Your task to perform on an android device: clear all cookies in the chrome app Image 0: 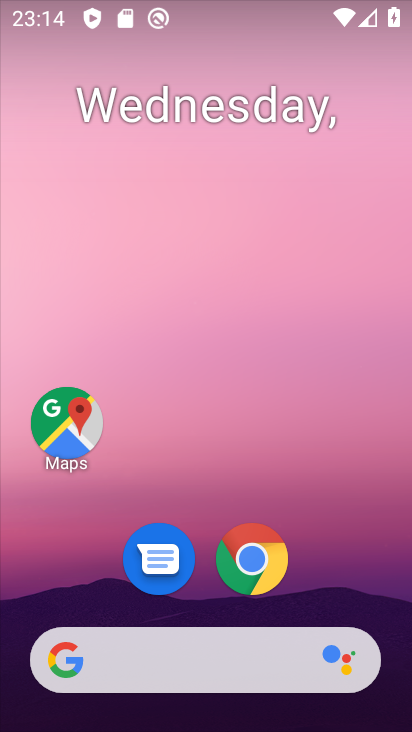
Step 0: click (258, 555)
Your task to perform on an android device: clear all cookies in the chrome app Image 1: 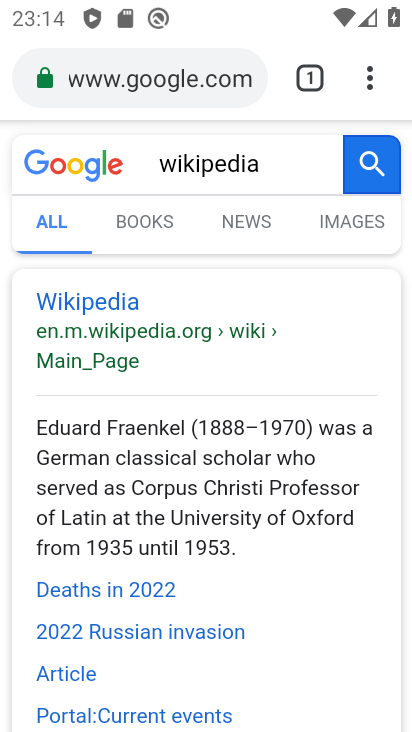
Step 1: click (370, 78)
Your task to perform on an android device: clear all cookies in the chrome app Image 2: 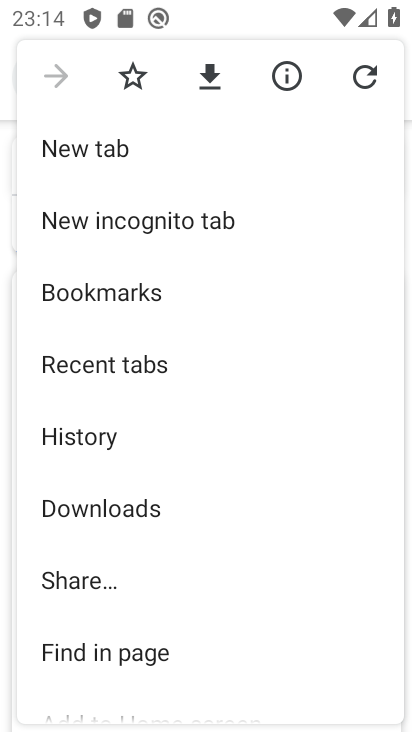
Step 2: click (93, 437)
Your task to perform on an android device: clear all cookies in the chrome app Image 3: 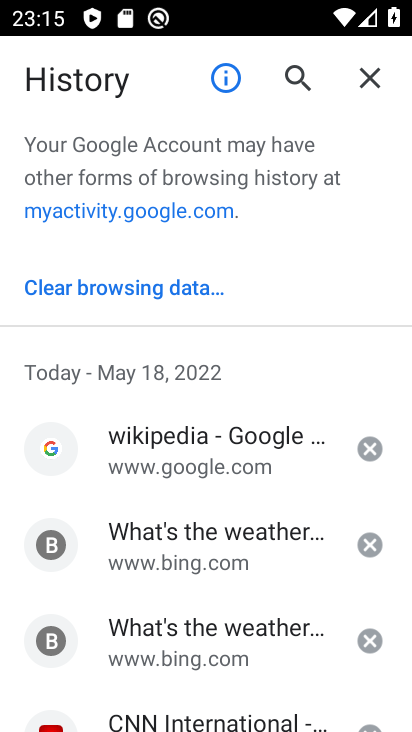
Step 3: click (178, 296)
Your task to perform on an android device: clear all cookies in the chrome app Image 4: 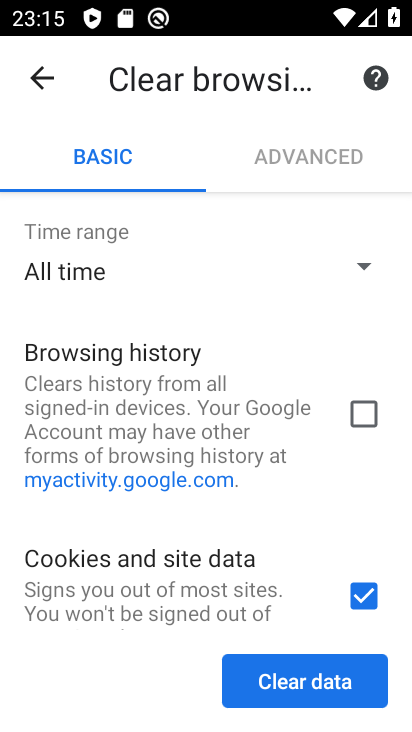
Step 4: click (331, 674)
Your task to perform on an android device: clear all cookies in the chrome app Image 5: 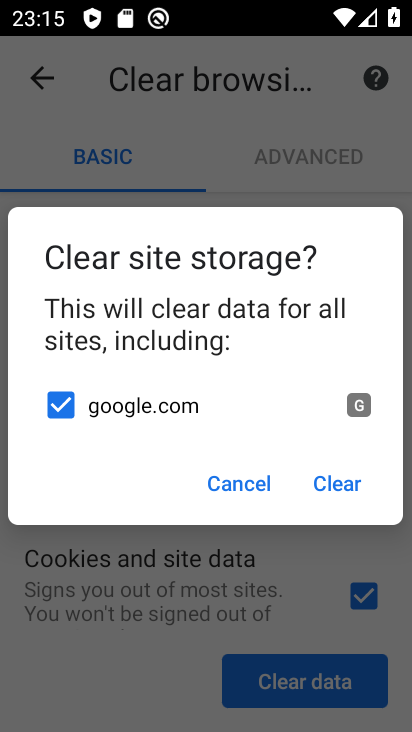
Step 5: click (332, 493)
Your task to perform on an android device: clear all cookies in the chrome app Image 6: 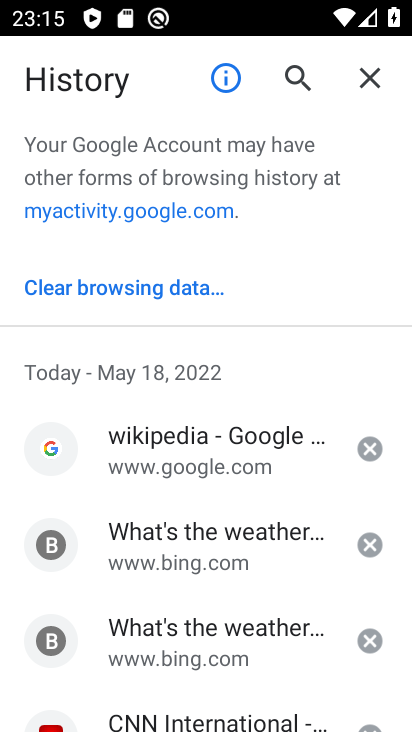
Step 6: task complete